Your task to perform on an android device: open chrome and create a bookmark for the current page Image 0: 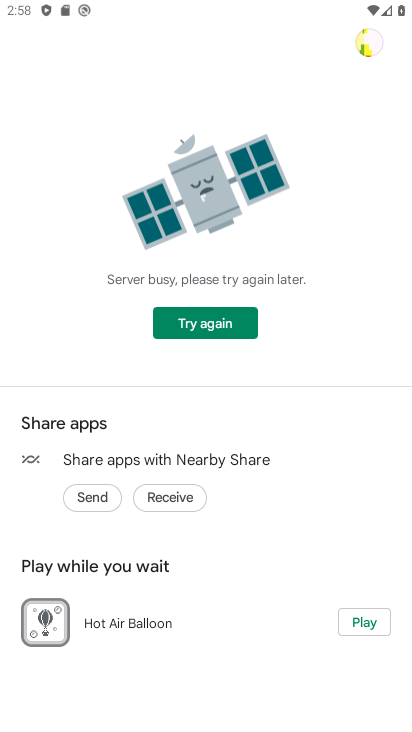
Step 0: press home button
Your task to perform on an android device: open chrome and create a bookmark for the current page Image 1: 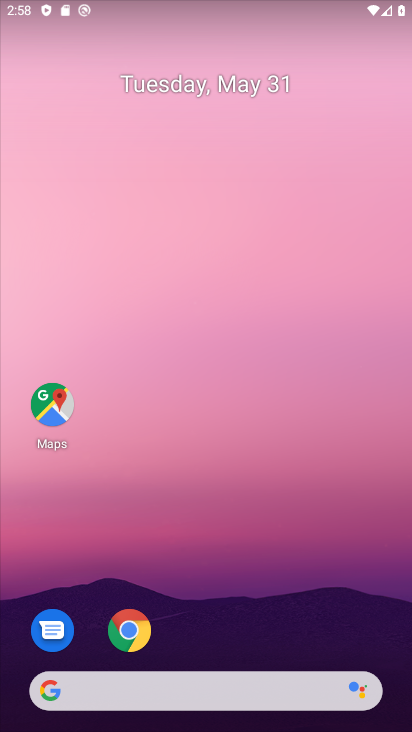
Step 1: click (126, 621)
Your task to perform on an android device: open chrome and create a bookmark for the current page Image 2: 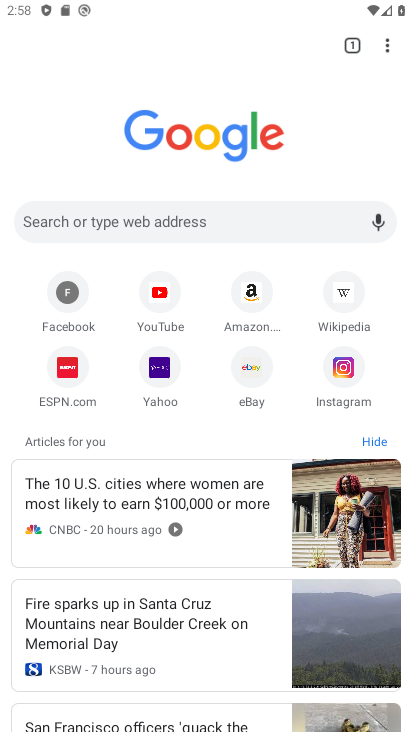
Step 2: click (396, 52)
Your task to perform on an android device: open chrome and create a bookmark for the current page Image 3: 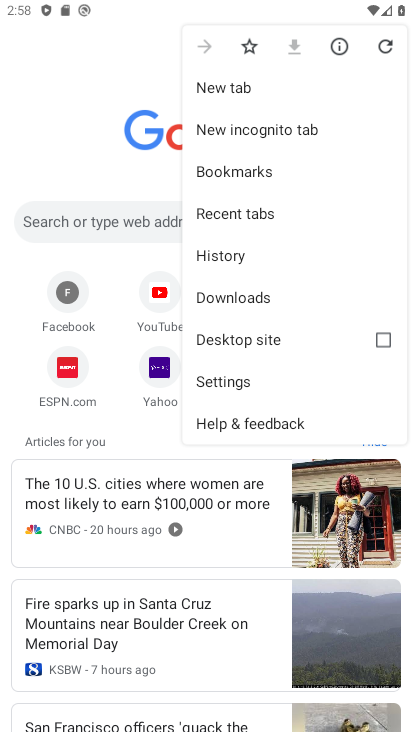
Step 3: click (254, 50)
Your task to perform on an android device: open chrome and create a bookmark for the current page Image 4: 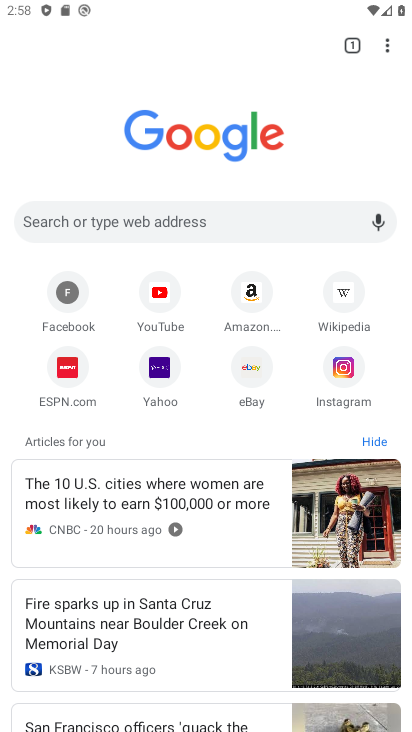
Step 4: task complete